Your task to perform on an android device: move a message to another label in the gmail app Image 0: 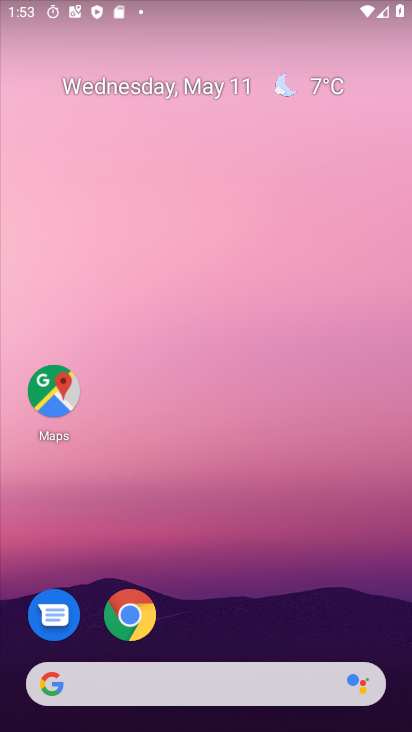
Step 0: drag from (188, 533) to (142, 130)
Your task to perform on an android device: move a message to another label in the gmail app Image 1: 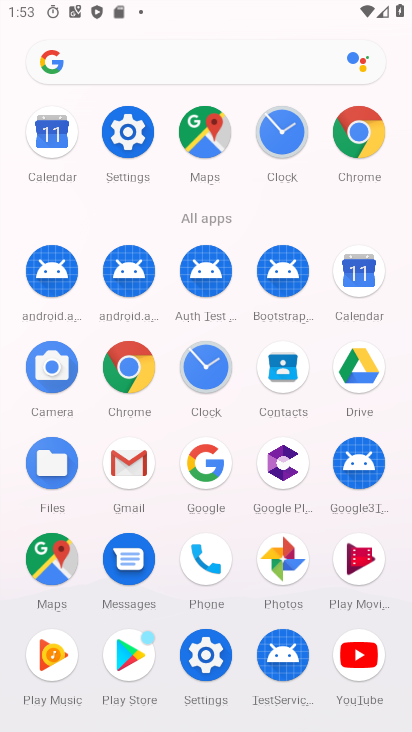
Step 1: click (122, 451)
Your task to perform on an android device: move a message to another label in the gmail app Image 2: 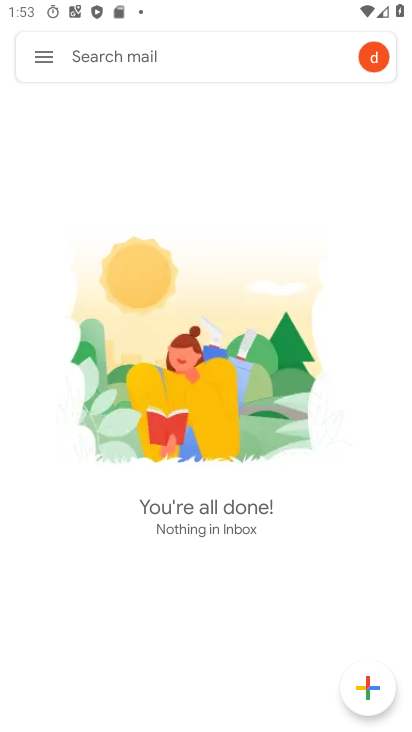
Step 2: click (42, 62)
Your task to perform on an android device: move a message to another label in the gmail app Image 3: 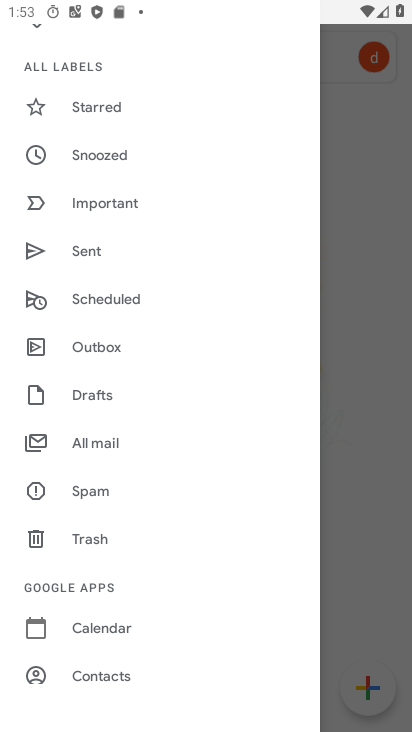
Step 3: click (89, 444)
Your task to perform on an android device: move a message to another label in the gmail app Image 4: 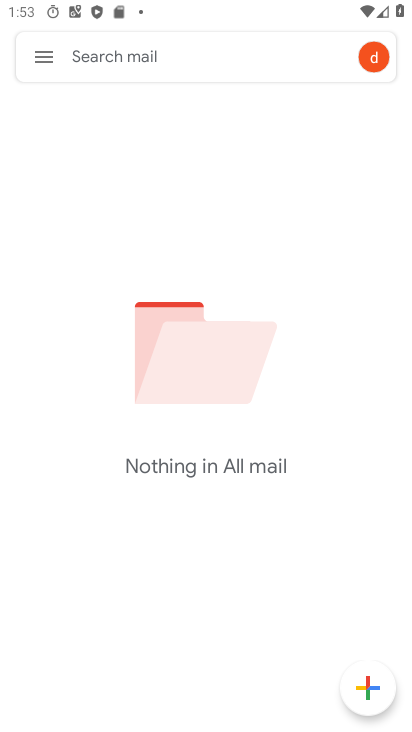
Step 4: task complete